Your task to perform on an android device: Open battery settings Image 0: 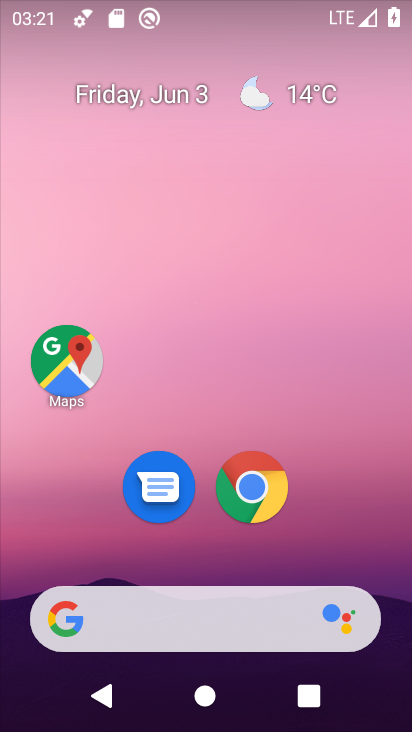
Step 0: drag from (356, 545) to (158, 3)
Your task to perform on an android device: Open battery settings Image 1: 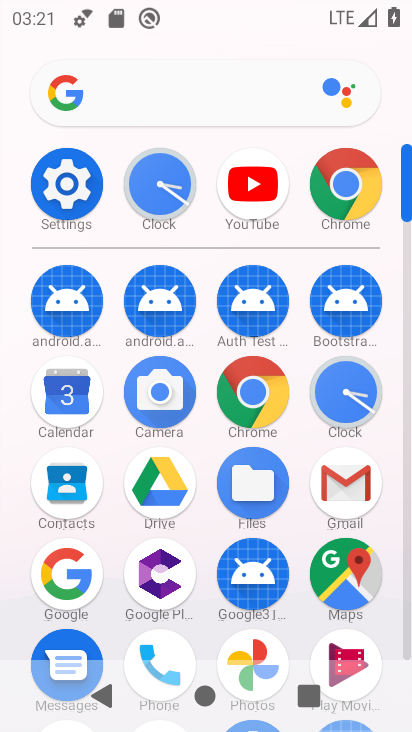
Step 1: click (80, 182)
Your task to perform on an android device: Open battery settings Image 2: 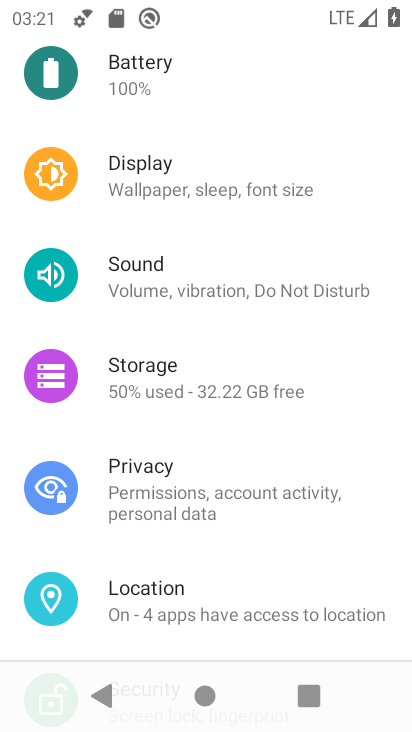
Step 2: click (188, 90)
Your task to perform on an android device: Open battery settings Image 3: 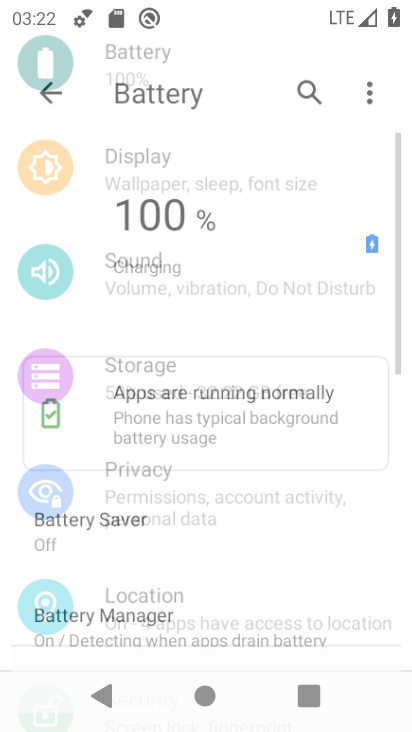
Step 3: task complete